Your task to perform on an android device: Open Wikipedia Image 0: 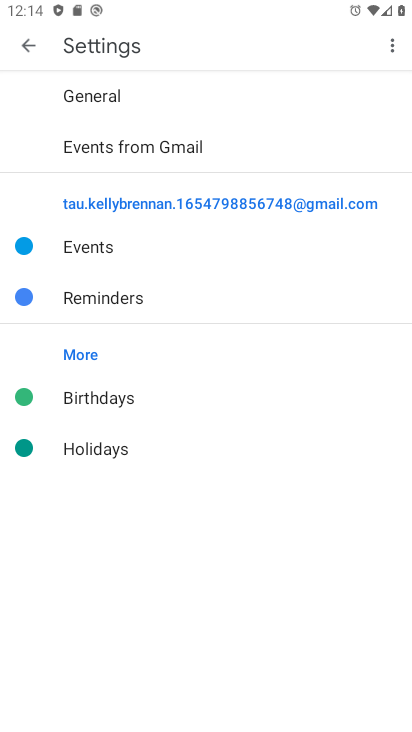
Step 0: press home button
Your task to perform on an android device: Open Wikipedia Image 1: 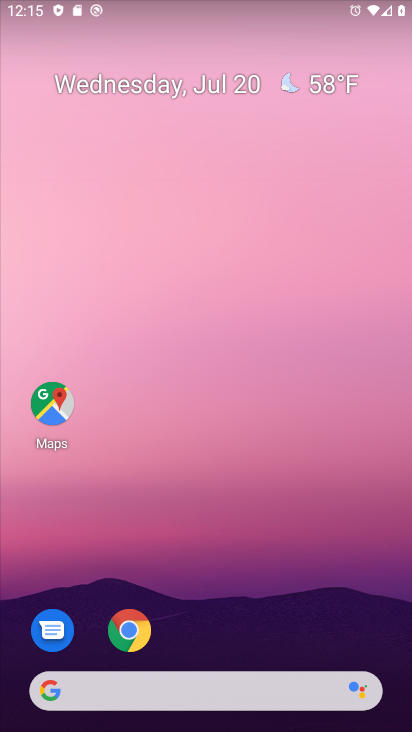
Step 1: click (132, 629)
Your task to perform on an android device: Open Wikipedia Image 2: 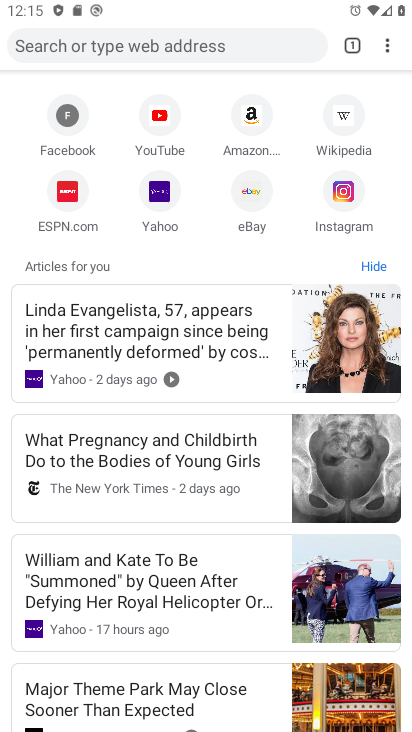
Step 2: click (345, 110)
Your task to perform on an android device: Open Wikipedia Image 3: 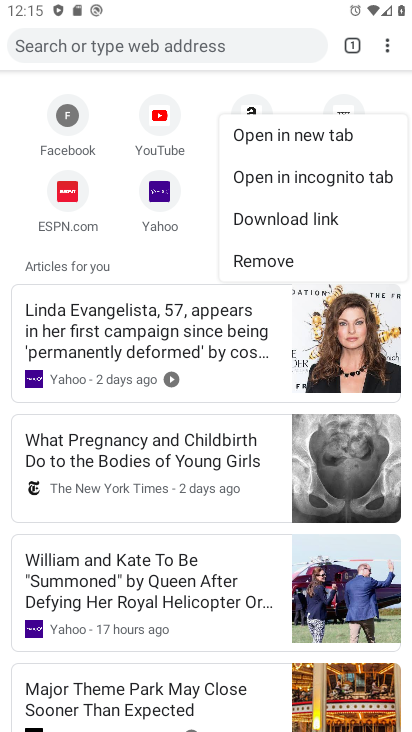
Step 3: click (345, 111)
Your task to perform on an android device: Open Wikipedia Image 4: 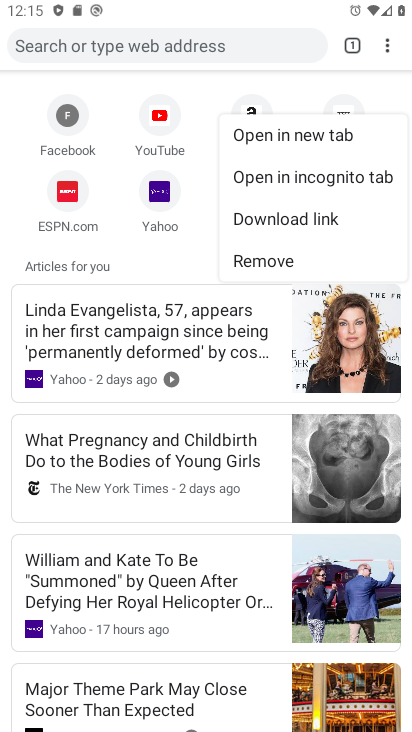
Step 4: drag from (164, 530) to (227, 217)
Your task to perform on an android device: Open Wikipedia Image 5: 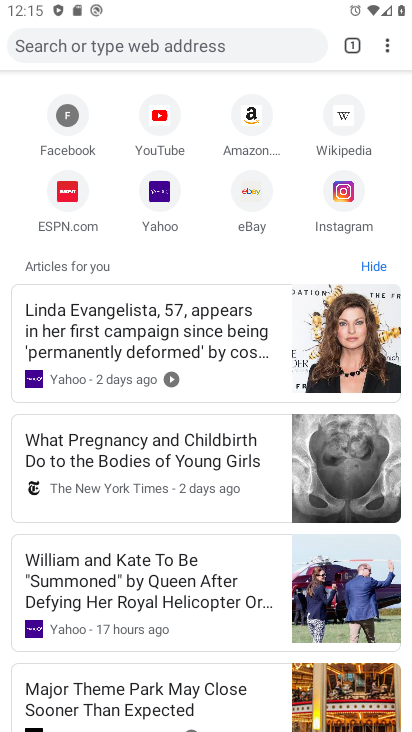
Step 5: click (342, 118)
Your task to perform on an android device: Open Wikipedia Image 6: 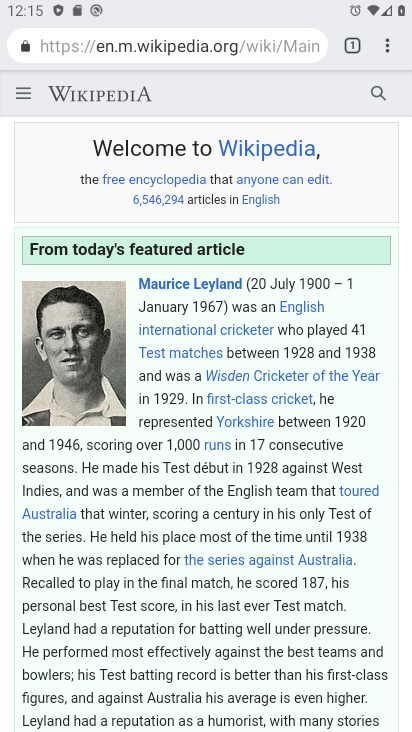
Step 6: task complete